Your task to perform on an android device: Search for "razer blade" on costco.com, select the first entry, add it to the cart, then select checkout. Image 0: 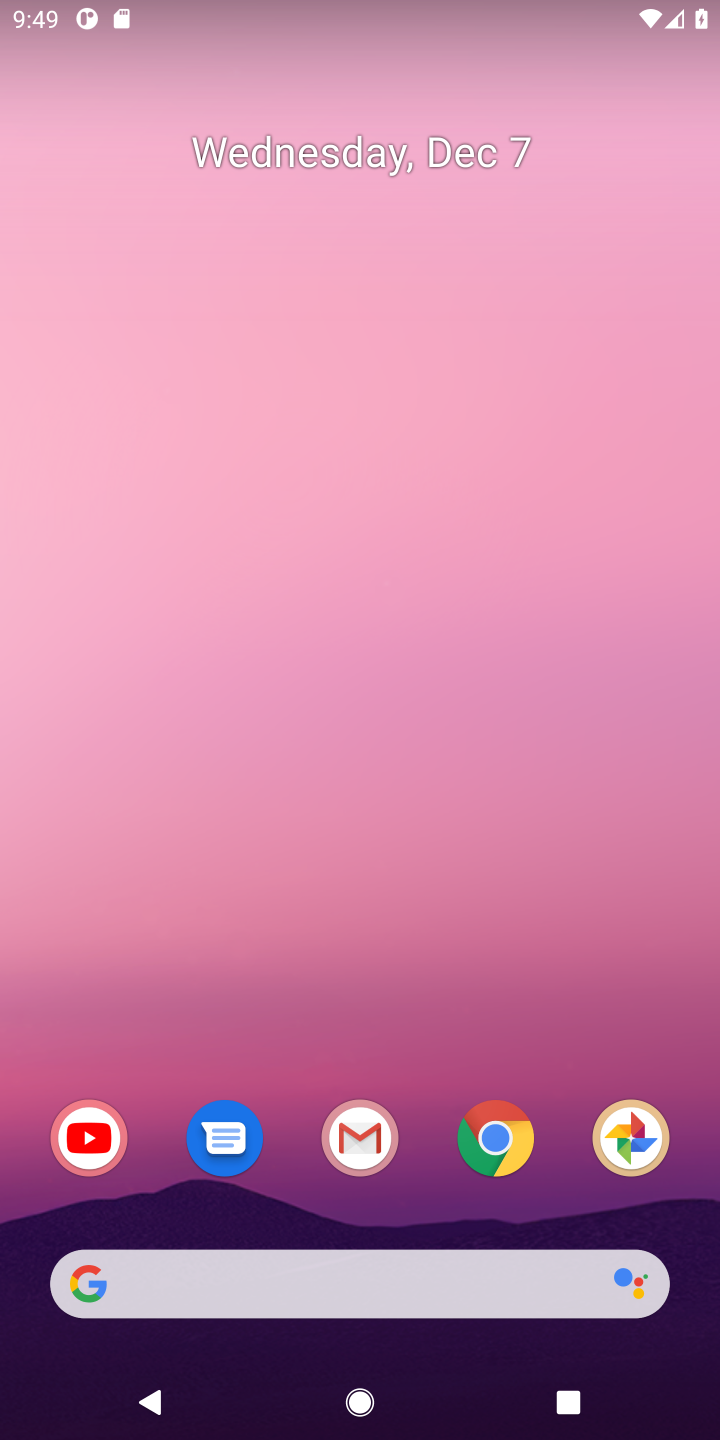
Step 0: click (119, 1282)
Your task to perform on an android device: Search for "razer blade" on costco.com, select the first entry, add it to the cart, then select checkout. Image 1: 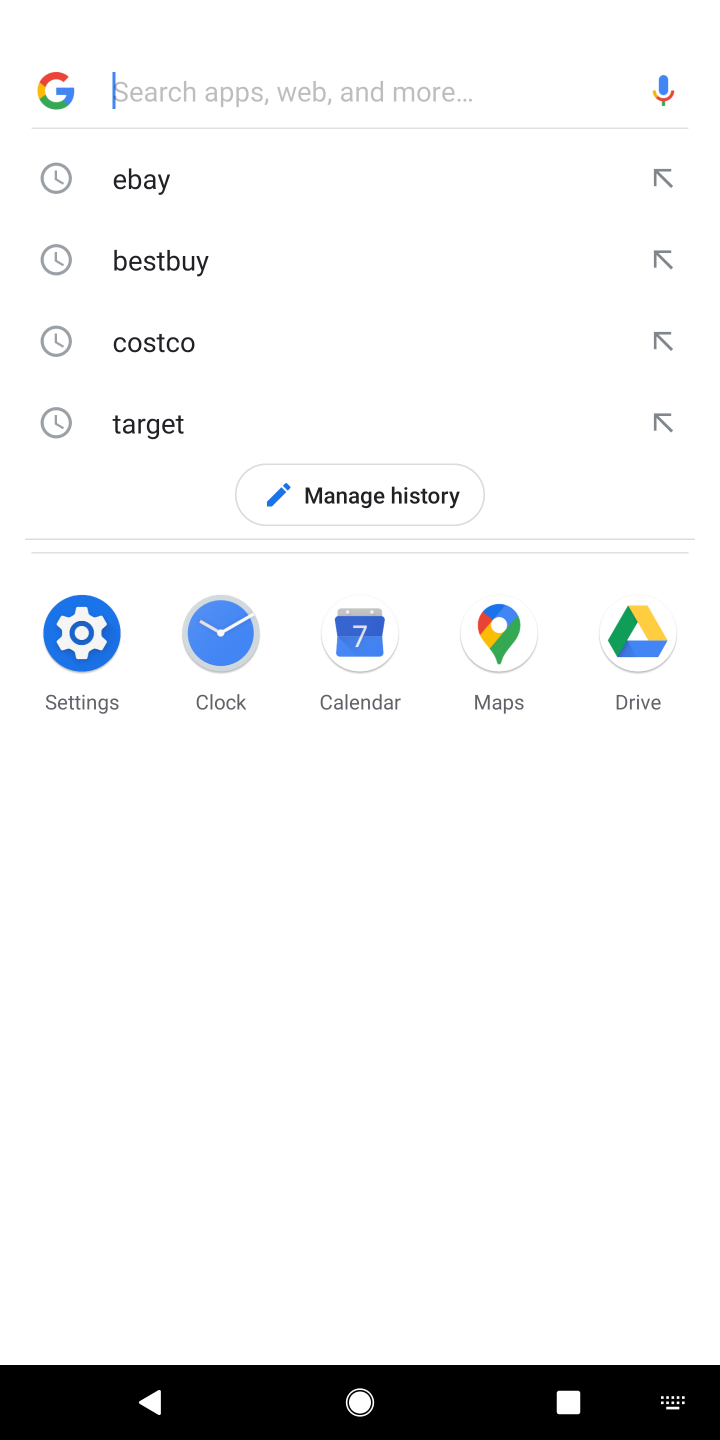
Step 1: type "costco.com"
Your task to perform on an android device: Search for "razer blade" on costco.com, select the first entry, add it to the cart, then select checkout. Image 2: 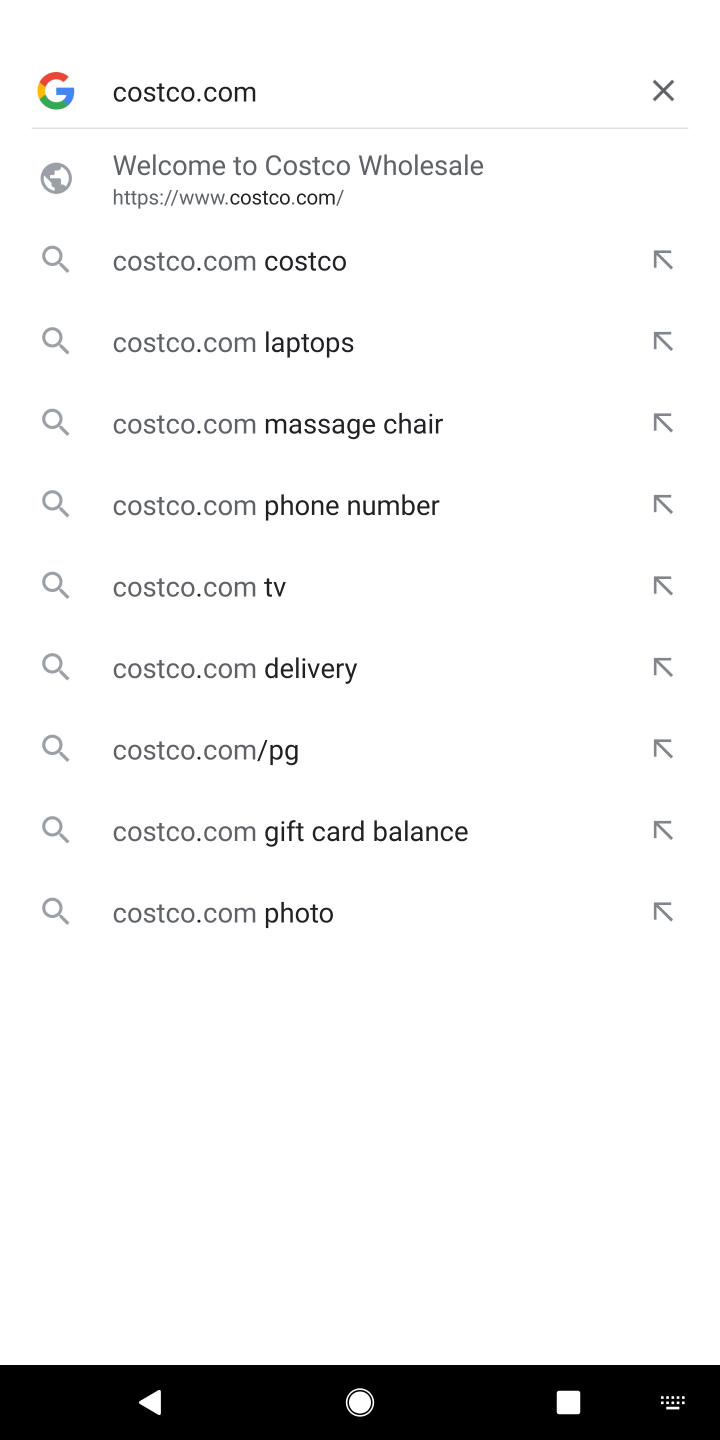
Step 2: press enter
Your task to perform on an android device: Search for "razer blade" on costco.com, select the first entry, add it to the cart, then select checkout. Image 3: 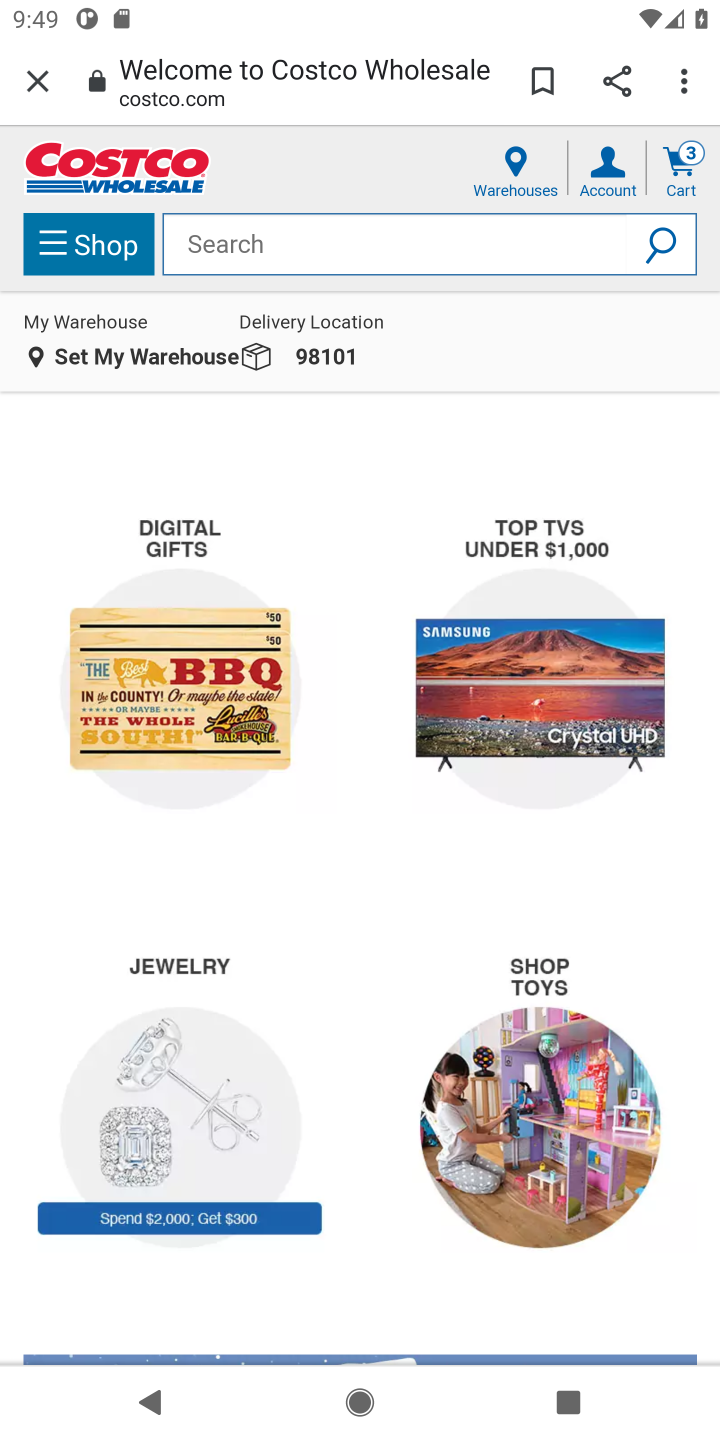
Step 3: click (261, 240)
Your task to perform on an android device: Search for "razer blade" on costco.com, select the first entry, add it to the cart, then select checkout. Image 4: 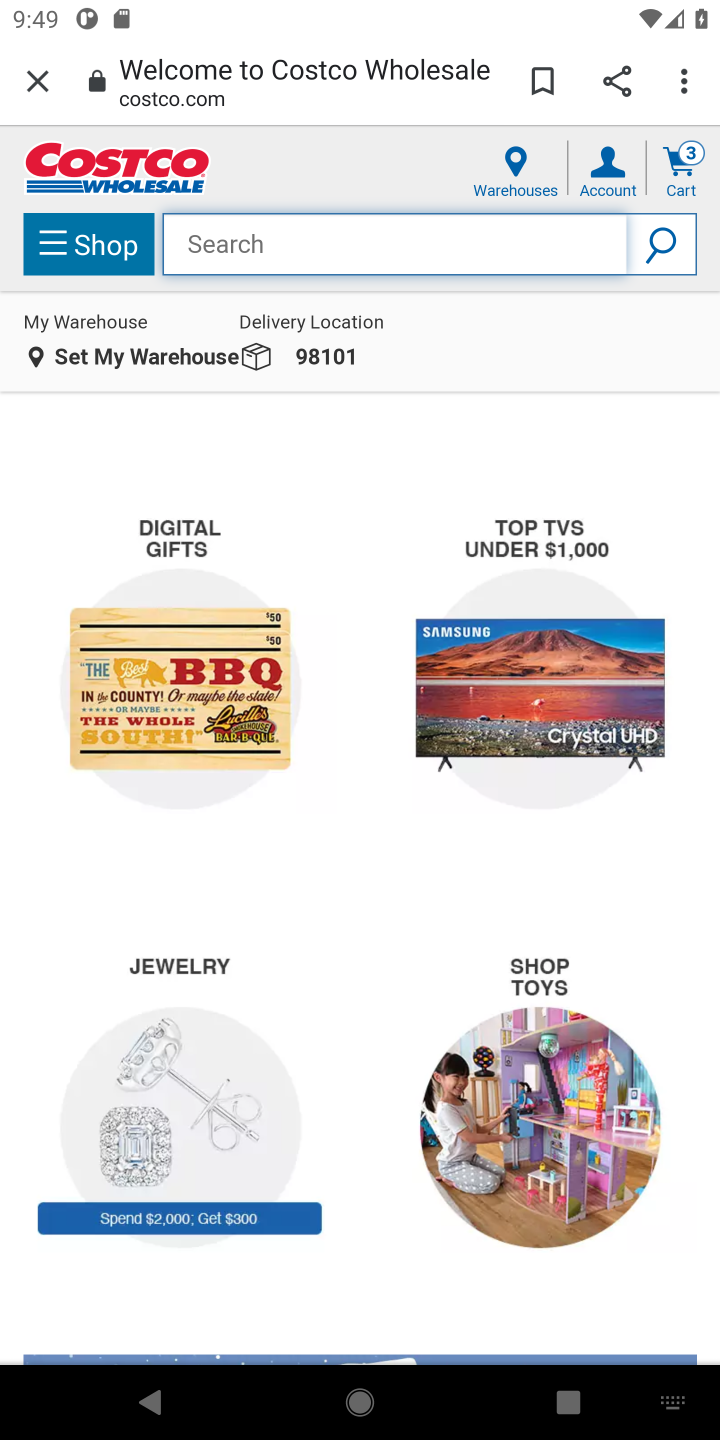
Step 4: type "razer blade"
Your task to perform on an android device: Search for "razer blade" on costco.com, select the first entry, add it to the cart, then select checkout. Image 5: 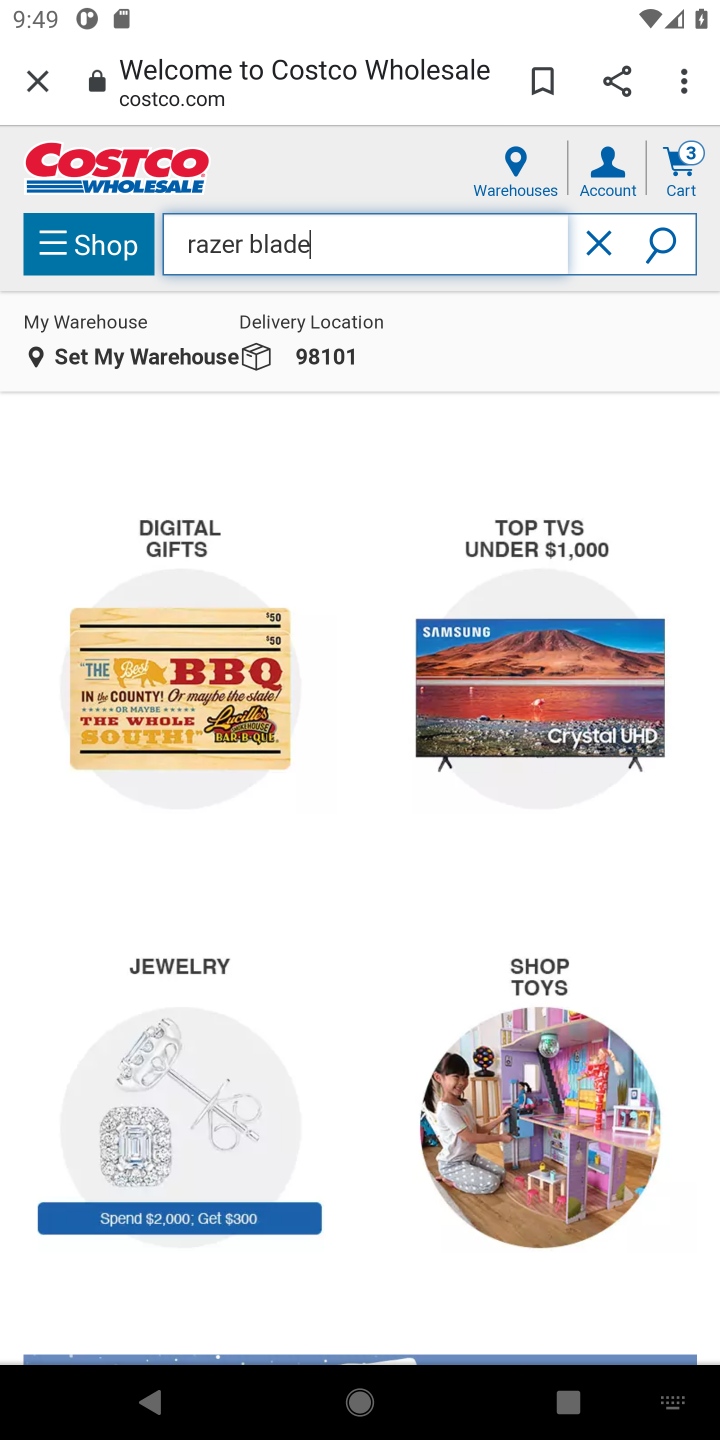
Step 5: press enter
Your task to perform on an android device: Search for "razer blade" on costco.com, select the first entry, add it to the cart, then select checkout. Image 6: 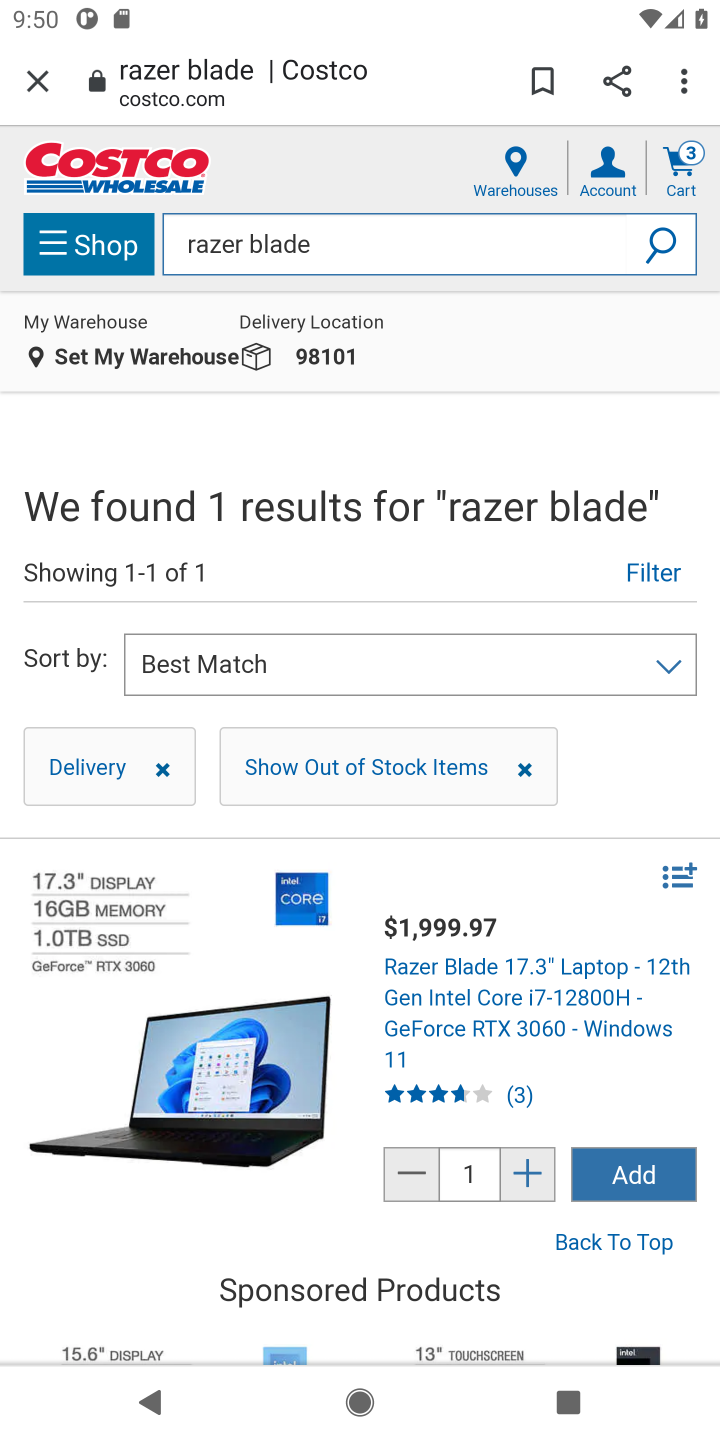
Step 6: click (648, 1172)
Your task to perform on an android device: Search for "razer blade" on costco.com, select the first entry, add it to the cart, then select checkout. Image 7: 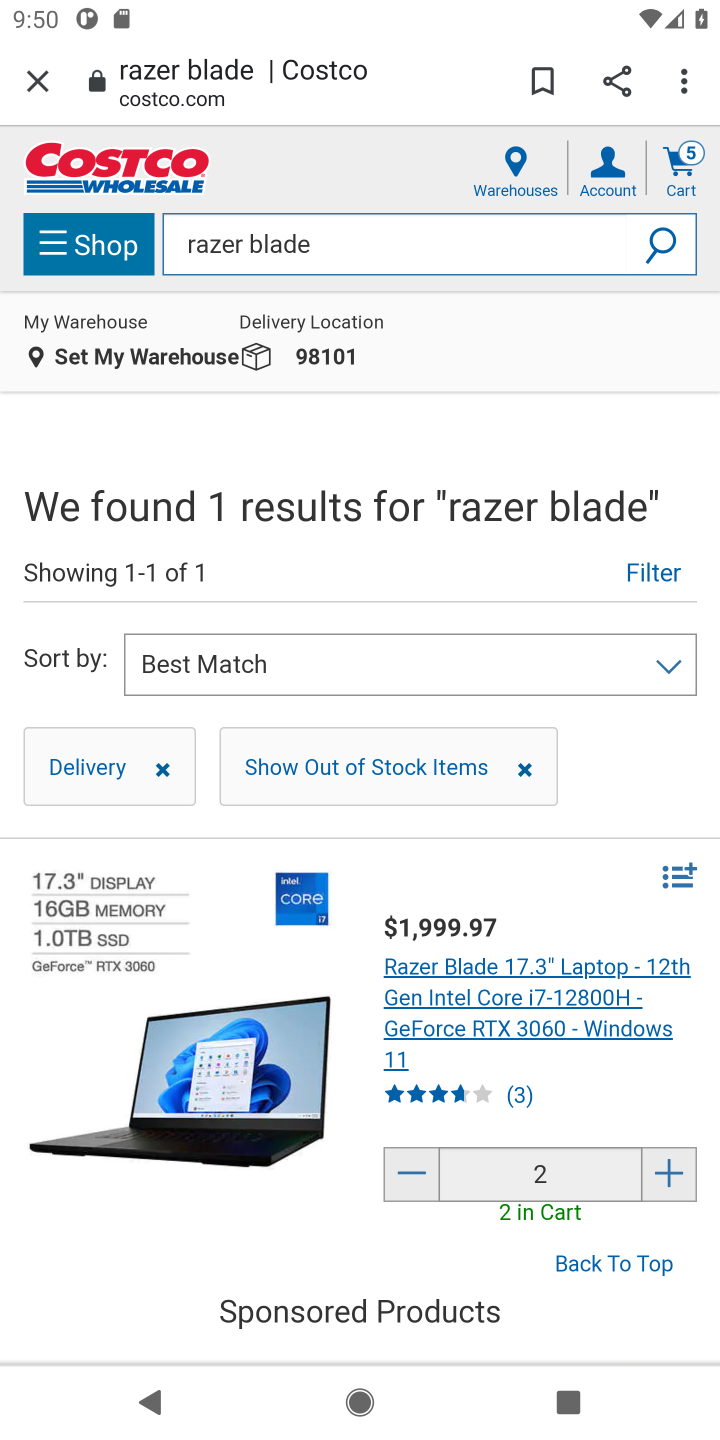
Step 7: click (676, 156)
Your task to perform on an android device: Search for "razer blade" on costco.com, select the first entry, add it to the cart, then select checkout. Image 8: 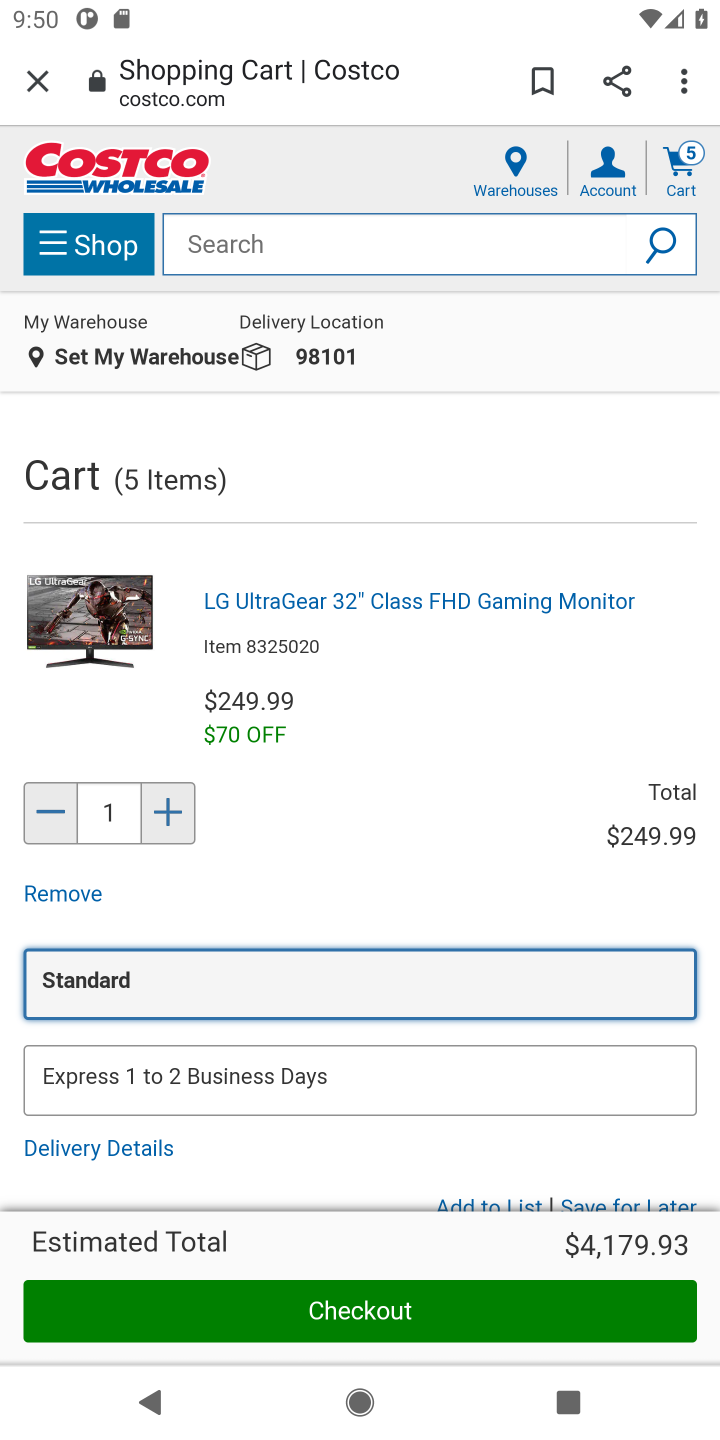
Step 8: click (311, 1312)
Your task to perform on an android device: Search for "razer blade" on costco.com, select the first entry, add it to the cart, then select checkout. Image 9: 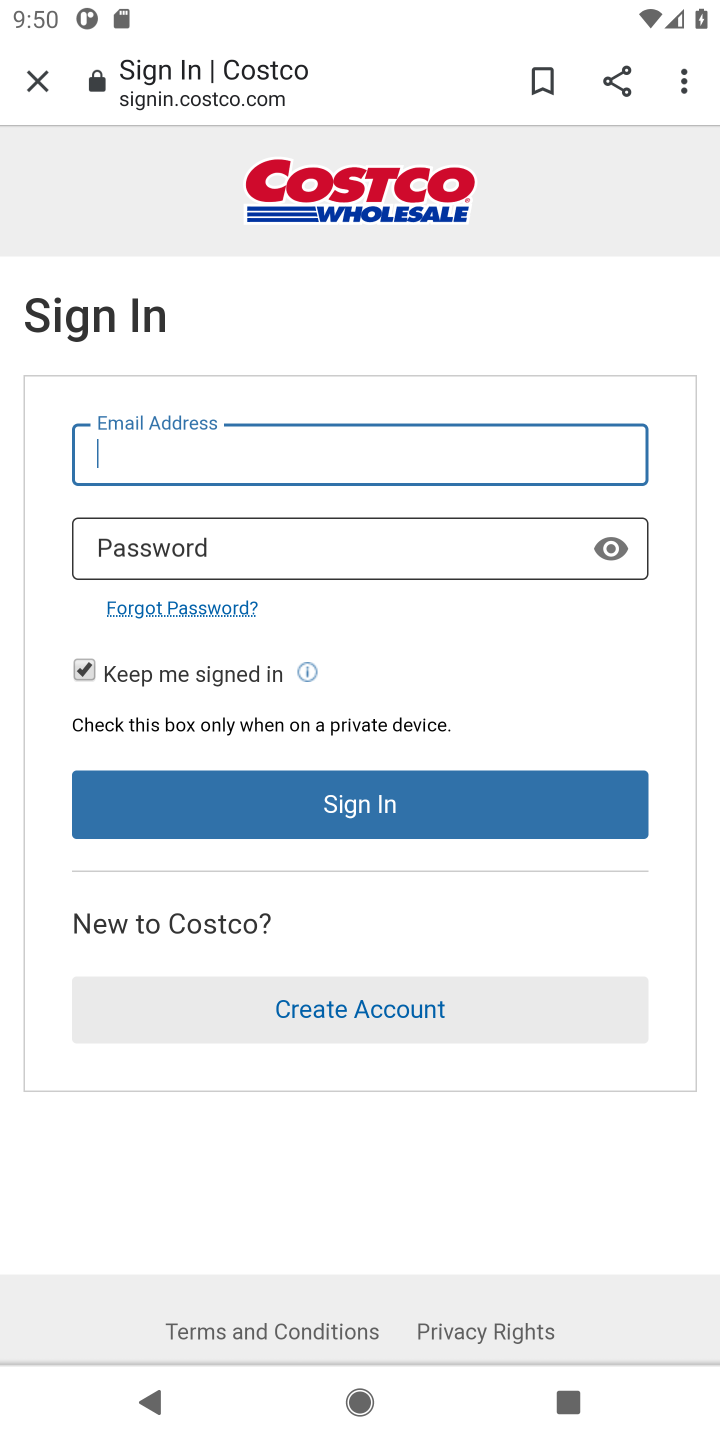
Step 9: task complete